Your task to perform on an android device: Do I have any events today? Image 0: 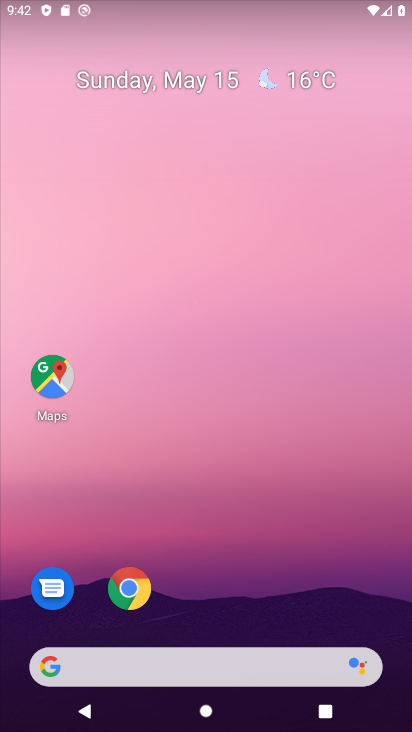
Step 0: drag from (189, 533) to (216, 52)
Your task to perform on an android device: Do I have any events today? Image 1: 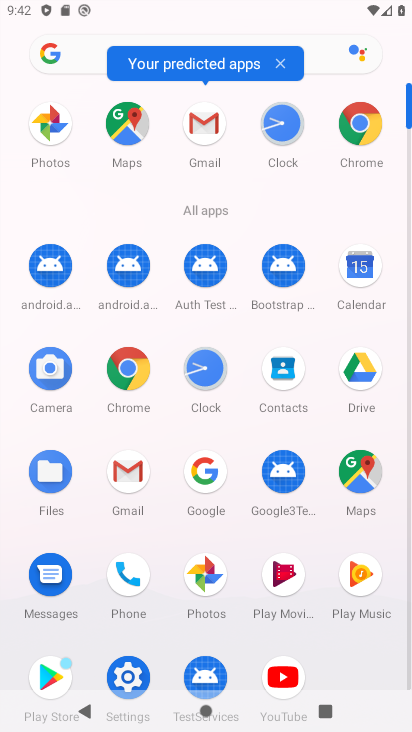
Step 1: click (352, 278)
Your task to perform on an android device: Do I have any events today? Image 2: 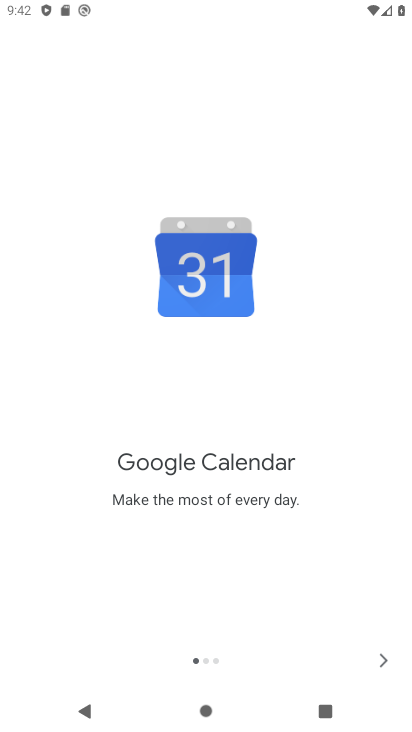
Step 2: click (380, 665)
Your task to perform on an android device: Do I have any events today? Image 3: 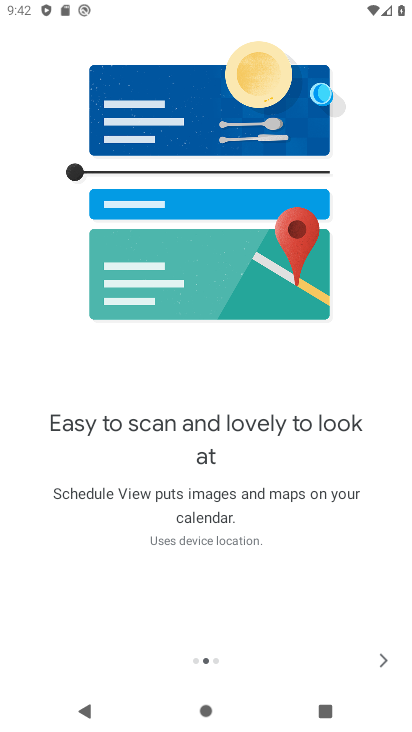
Step 3: click (380, 665)
Your task to perform on an android device: Do I have any events today? Image 4: 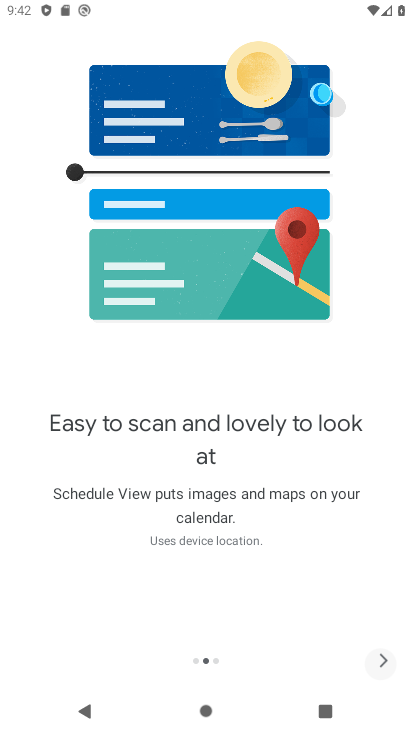
Step 4: click (380, 665)
Your task to perform on an android device: Do I have any events today? Image 5: 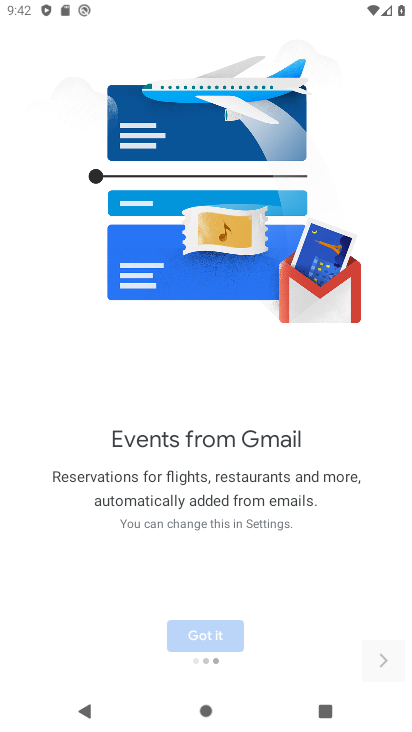
Step 5: click (380, 665)
Your task to perform on an android device: Do I have any events today? Image 6: 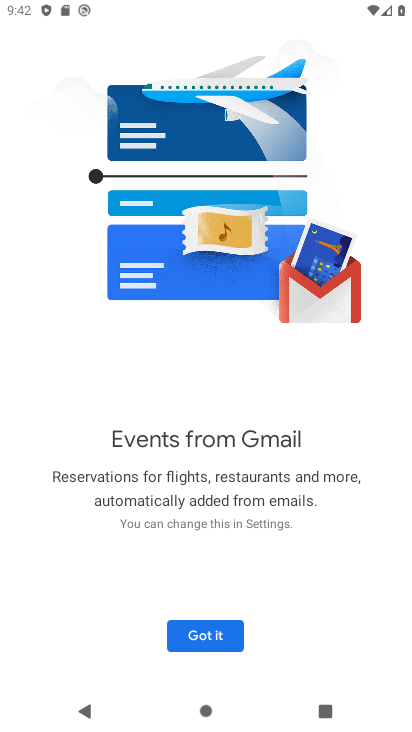
Step 6: click (222, 634)
Your task to perform on an android device: Do I have any events today? Image 7: 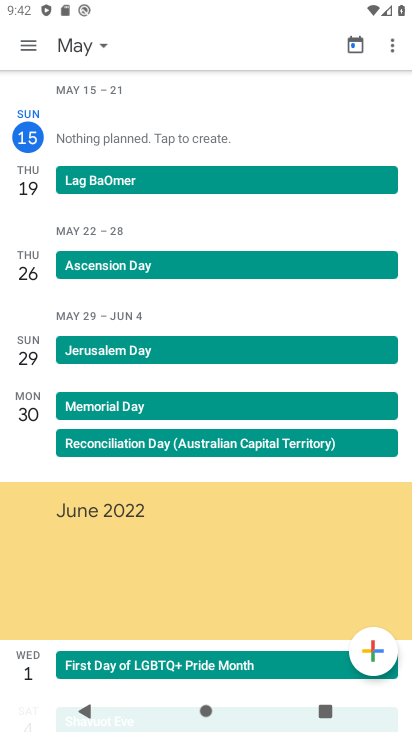
Step 7: click (99, 43)
Your task to perform on an android device: Do I have any events today? Image 8: 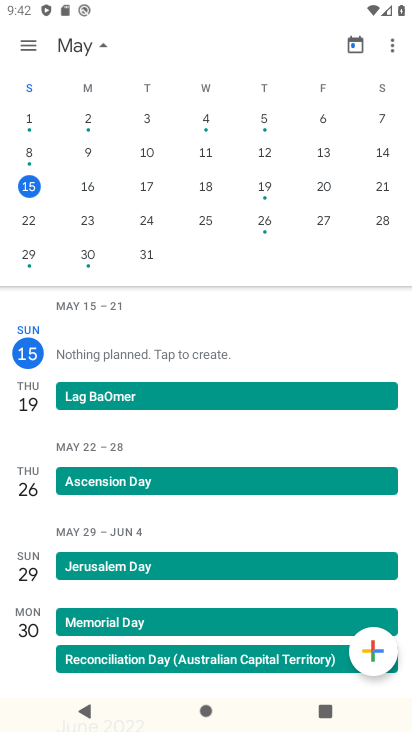
Step 8: click (85, 190)
Your task to perform on an android device: Do I have any events today? Image 9: 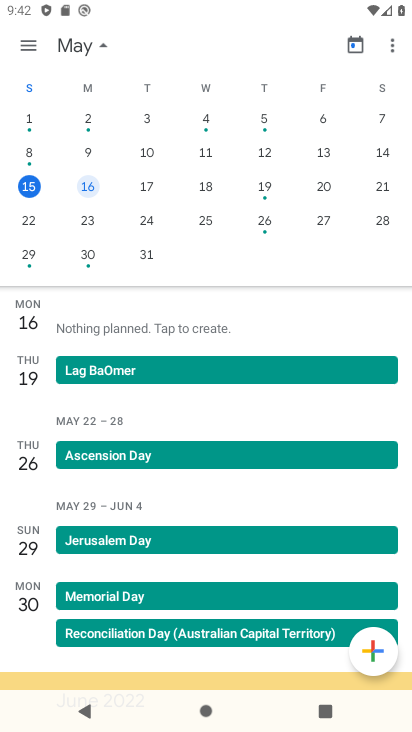
Step 9: click (25, 318)
Your task to perform on an android device: Do I have any events today? Image 10: 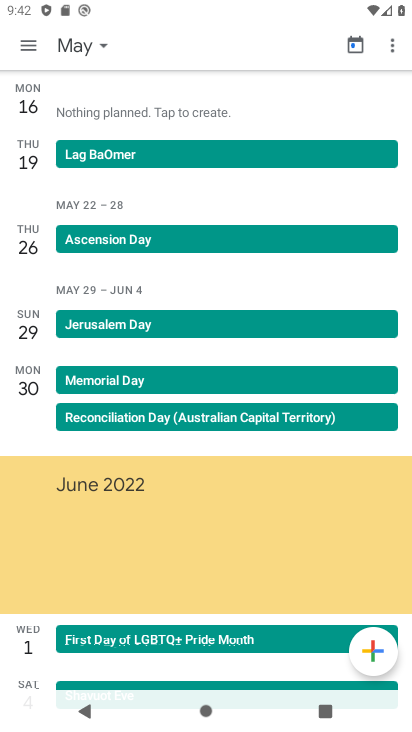
Step 10: task complete